Your task to perform on an android device: Go to ESPN.com Image 0: 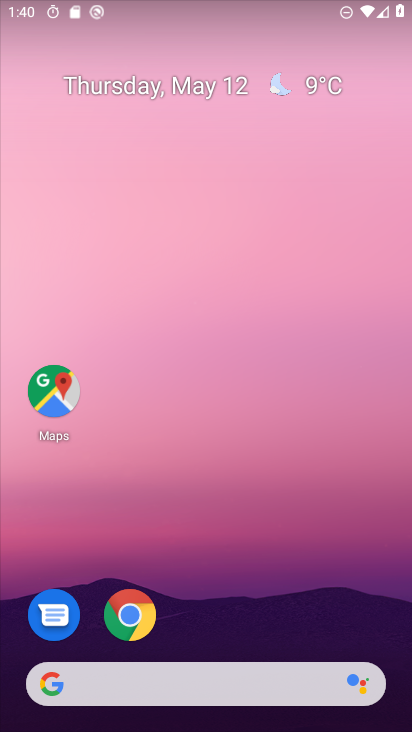
Step 0: click (127, 618)
Your task to perform on an android device: Go to ESPN.com Image 1: 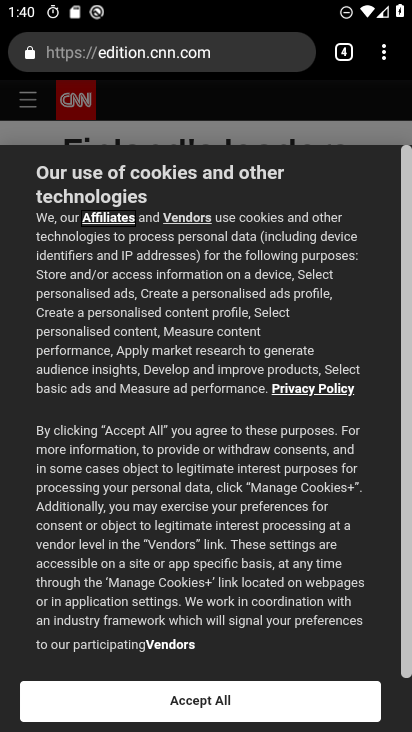
Step 1: drag from (128, 614) to (211, 291)
Your task to perform on an android device: Go to ESPN.com Image 2: 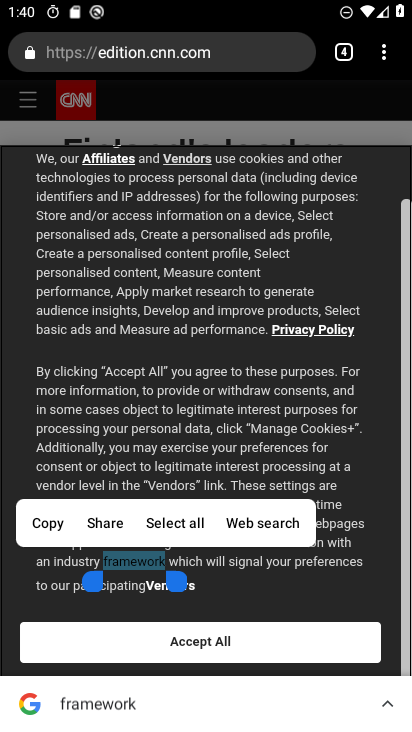
Step 2: click (270, 42)
Your task to perform on an android device: Go to ESPN.com Image 3: 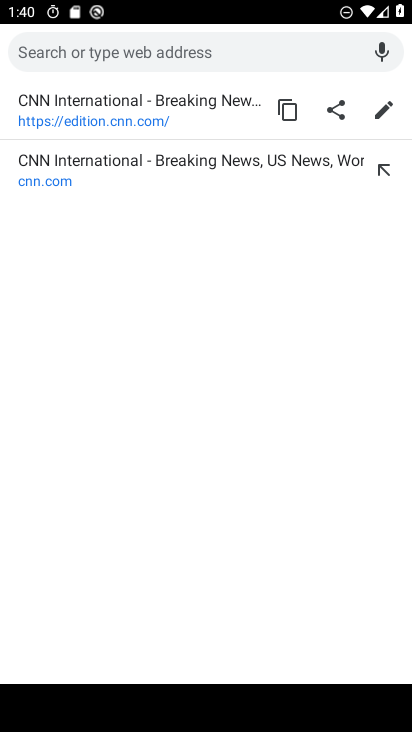
Step 3: type "espn.com"
Your task to perform on an android device: Go to ESPN.com Image 4: 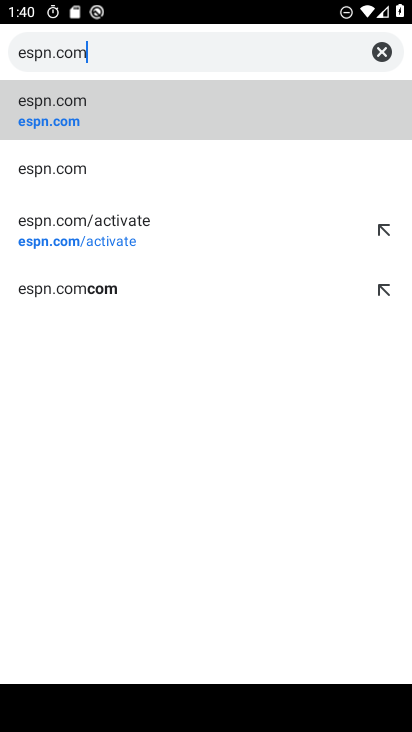
Step 4: click (52, 117)
Your task to perform on an android device: Go to ESPN.com Image 5: 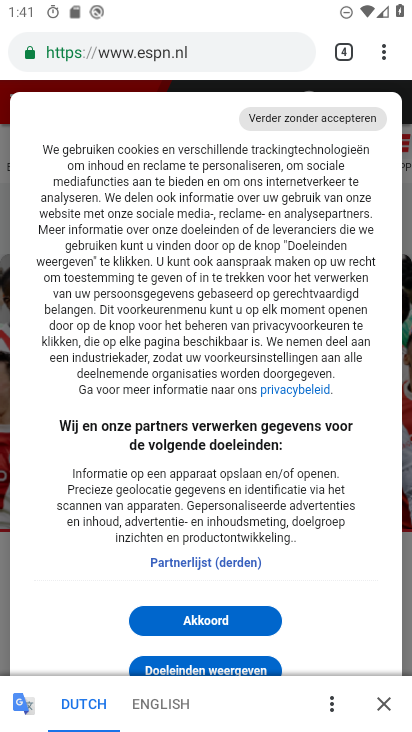
Step 5: task complete